Your task to perform on an android device: When is my next appointment? Image 0: 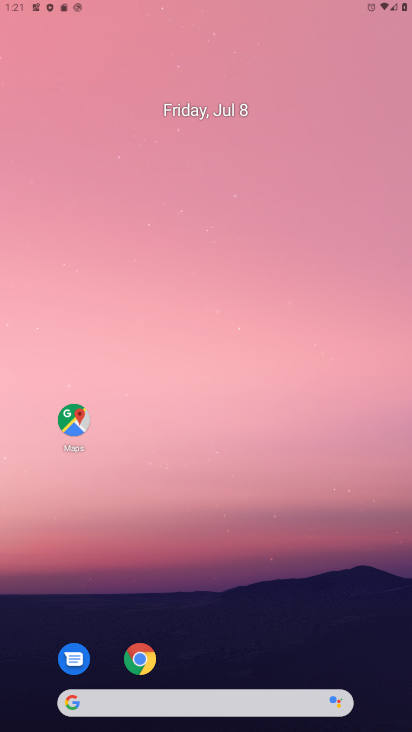
Step 0: drag from (248, 537) to (115, 162)
Your task to perform on an android device: When is my next appointment? Image 1: 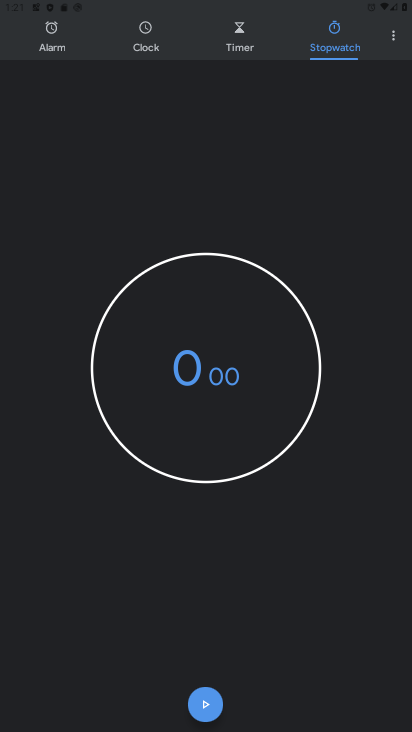
Step 1: press home button
Your task to perform on an android device: When is my next appointment? Image 2: 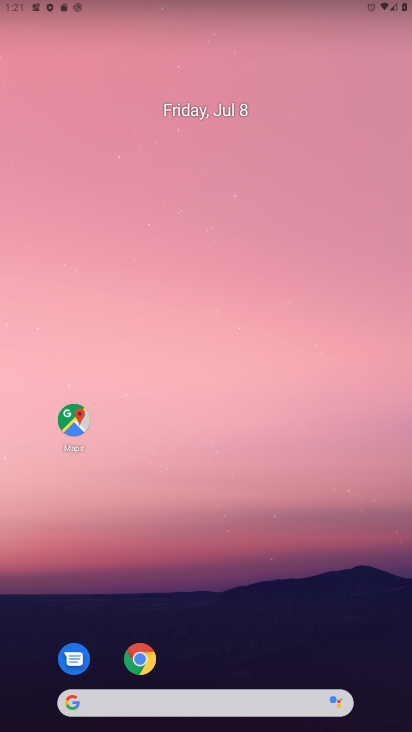
Step 2: drag from (327, 576) to (265, 196)
Your task to perform on an android device: When is my next appointment? Image 3: 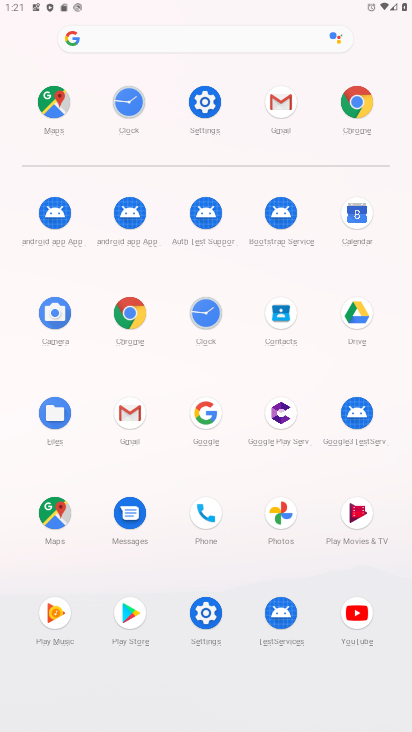
Step 3: click (350, 215)
Your task to perform on an android device: When is my next appointment? Image 4: 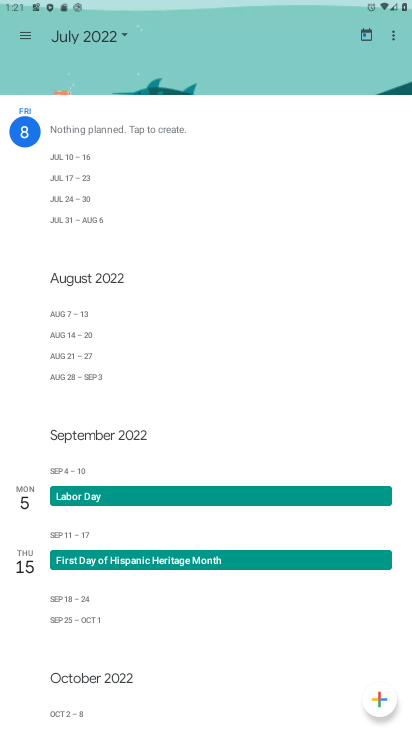
Step 4: task complete